Your task to perform on an android device: change your default location settings in chrome Image 0: 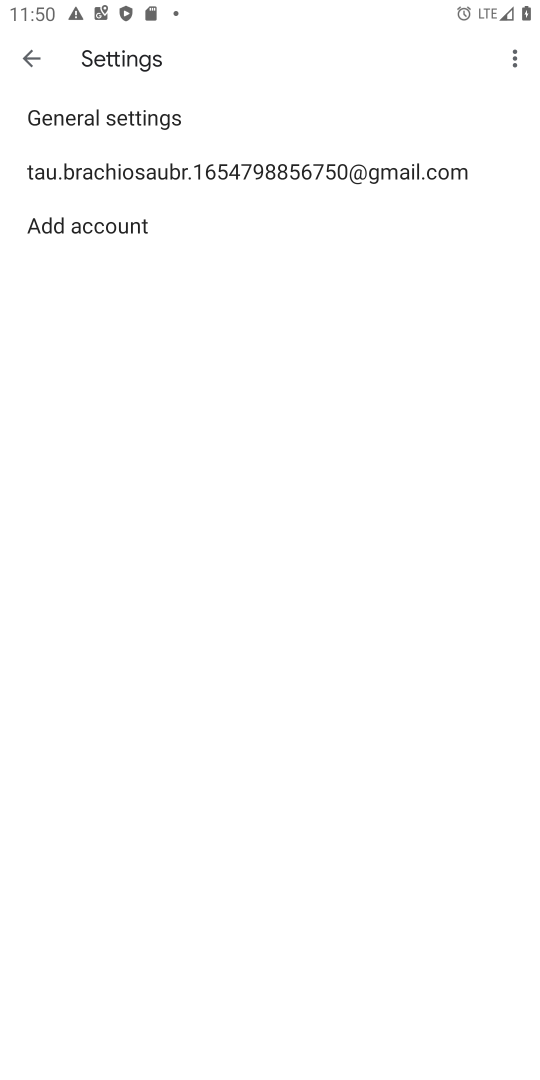
Step 0: press home button
Your task to perform on an android device: change your default location settings in chrome Image 1: 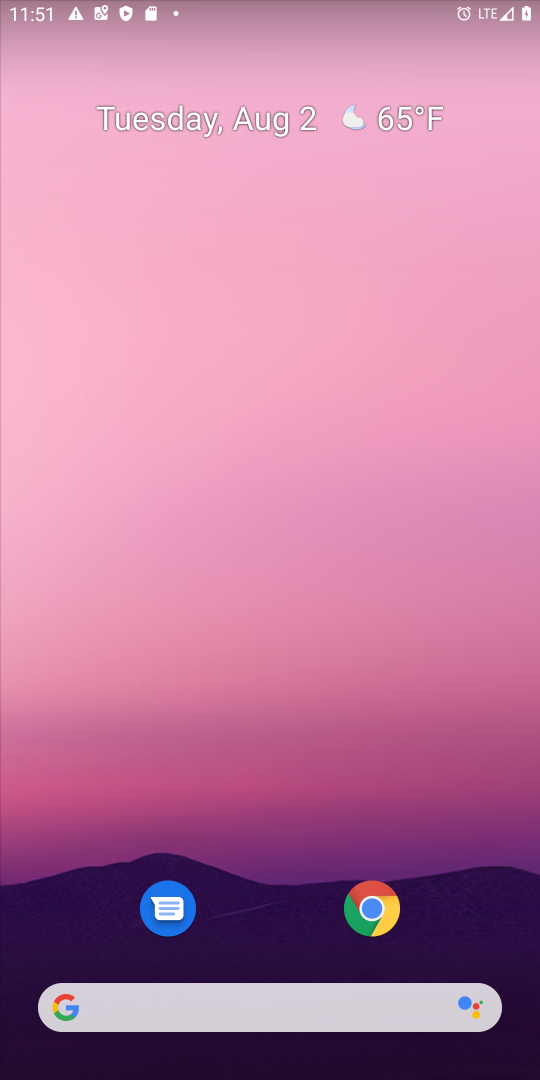
Step 1: drag from (294, 741) to (301, 2)
Your task to perform on an android device: change your default location settings in chrome Image 2: 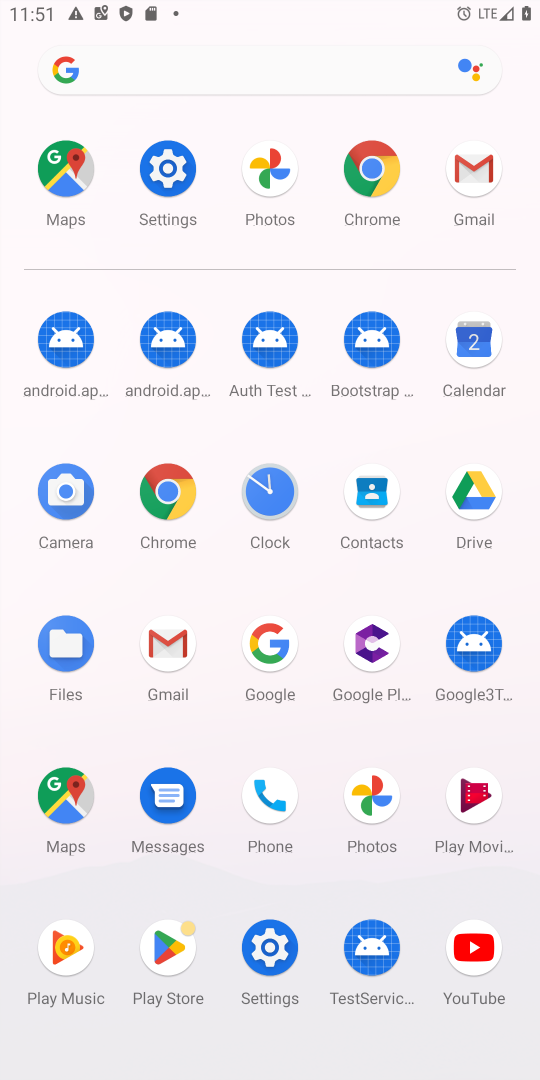
Step 2: click (145, 516)
Your task to perform on an android device: change your default location settings in chrome Image 3: 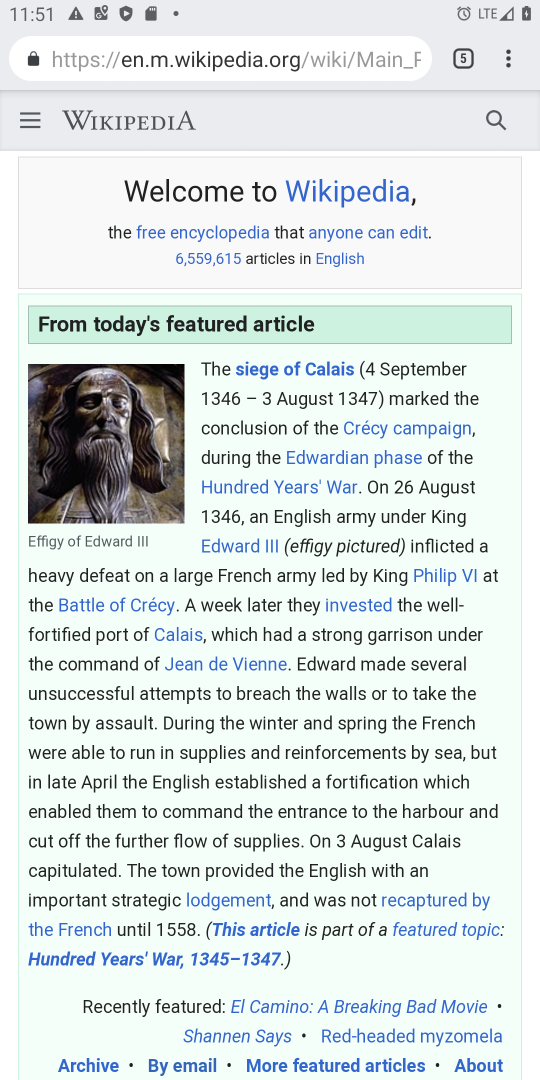
Step 3: click (516, 61)
Your task to perform on an android device: change your default location settings in chrome Image 4: 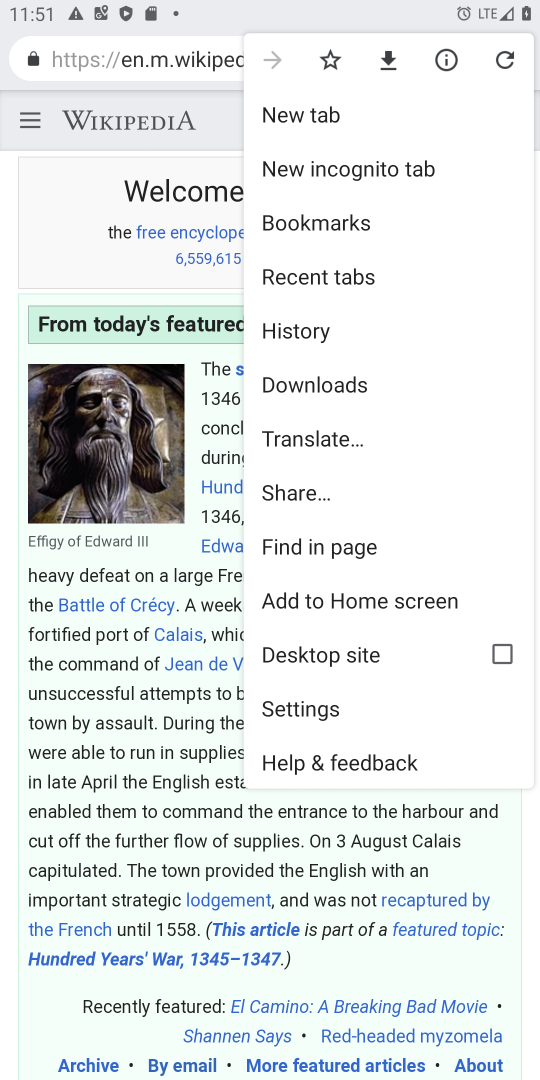
Step 4: click (337, 707)
Your task to perform on an android device: change your default location settings in chrome Image 5: 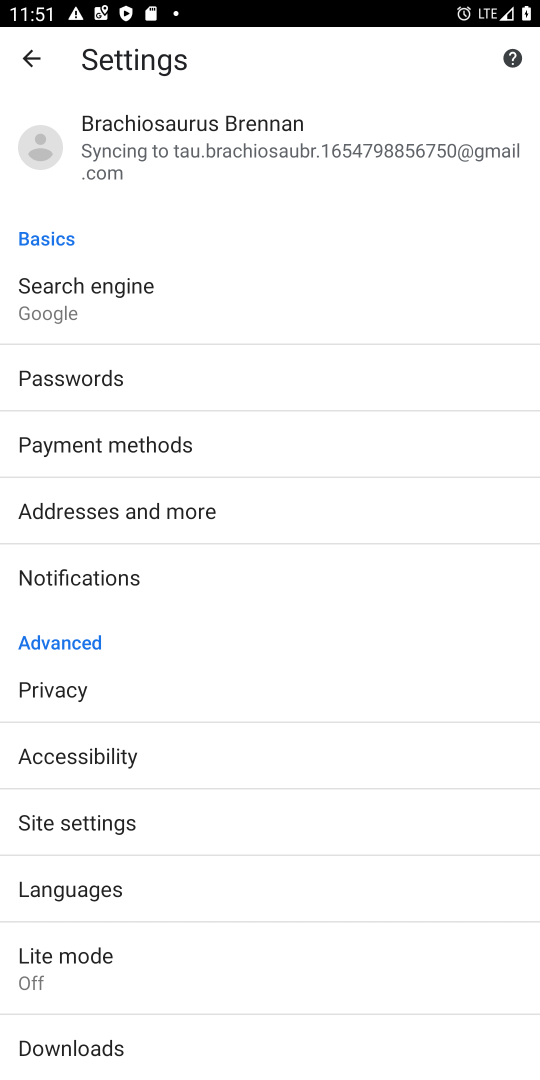
Step 5: click (190, 825)
Your task to perform on an android device: change your default location settings in chrome Image 6: 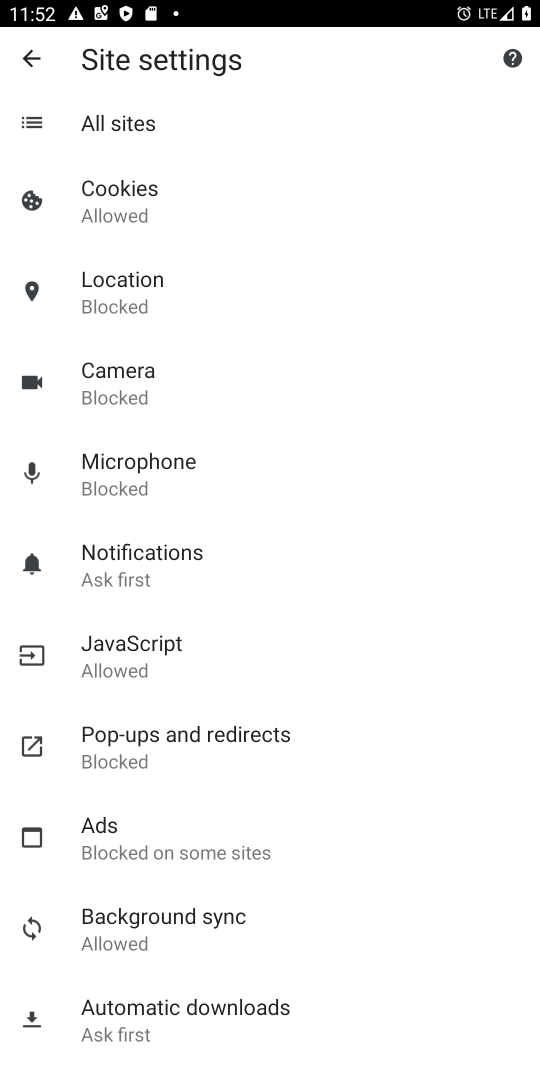
Step 6: click (196, 305)
Your task to perform on an android device: change your default location settings in chrome Image 7: 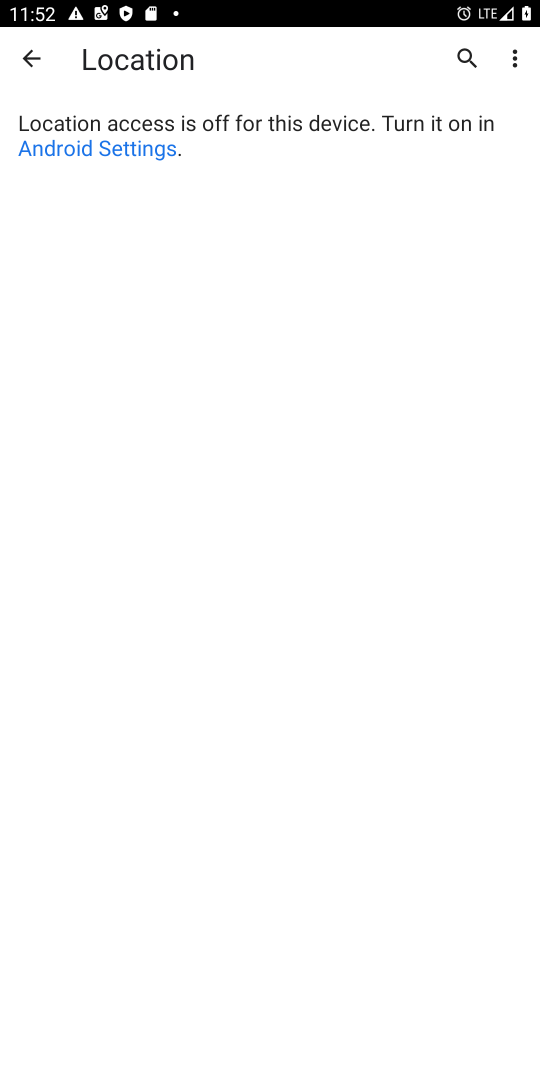
Step 7: click (93, 145)
Your task to perform on an android device: change your default location settings in chrome Image 8: 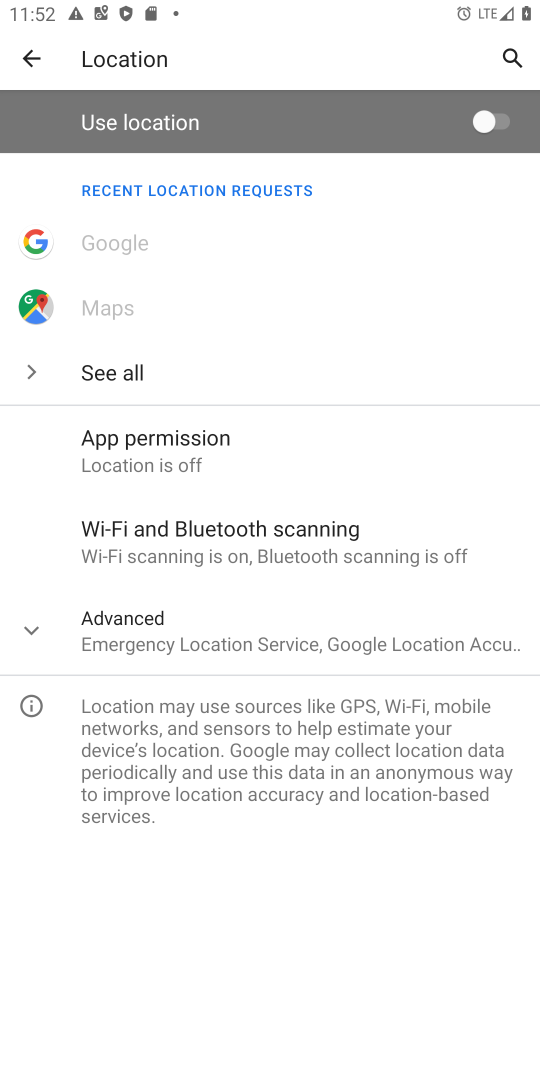
Step 8: click (491, 131)
Your task to perform on an android device: change your default location settings in chrome Image 9: 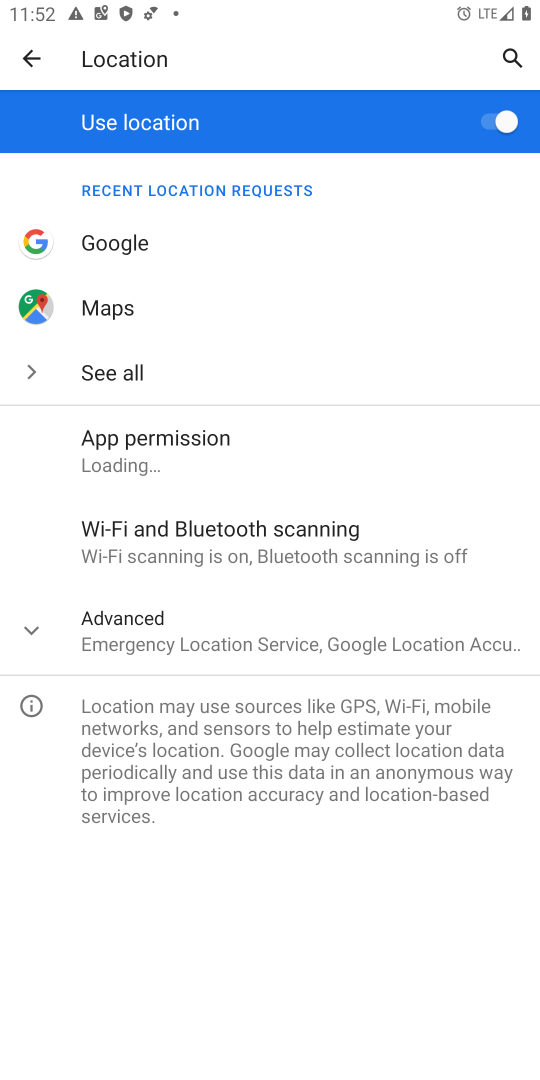
Step 9: task complete